Your task to perform on an android device: turn off sleep mode Image 0: 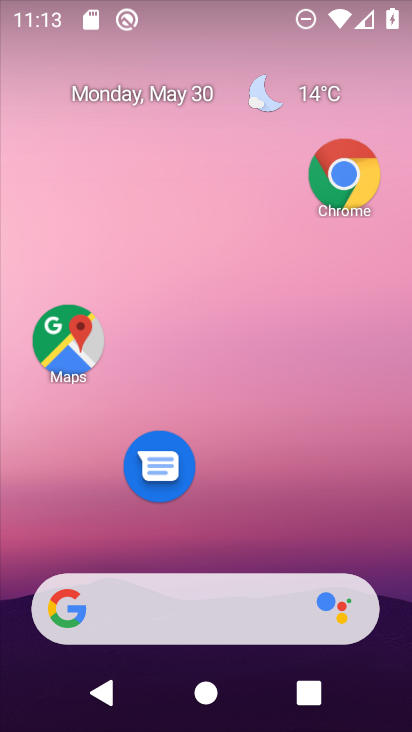
Step 0: click (344, 169)
Your task to perform on an android device: turn off sleep mode Image 1: 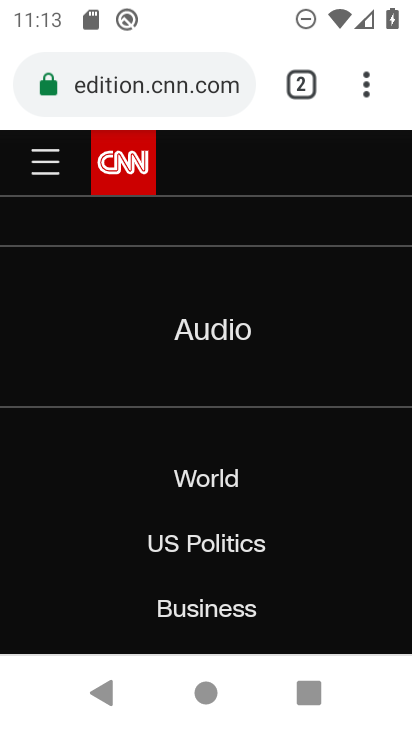
Step 1: click (303, 76)
Your task to perform on an android device: turn off sleep mode Image 2: 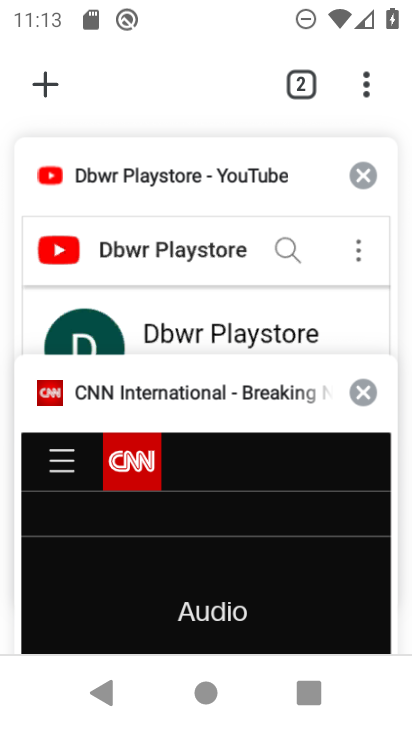
Step 2: click (48, 71)
Your task to perform on an android device: turn off sleep mode Image 3: 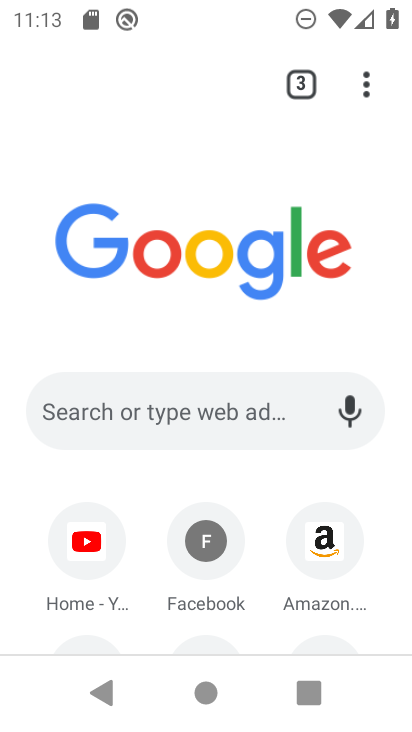
Step 3: press home button
Your task to perform on an android device: turn off sleep mode Image 4: 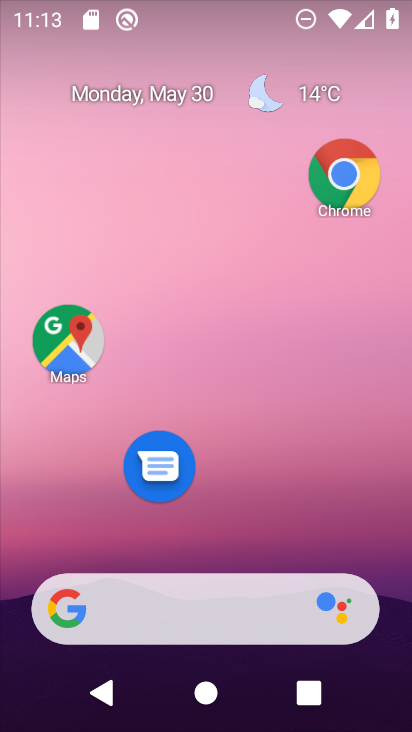
Step 4: drag from (288, 492) to (176, 89)
Your task to perform on an android device: turn off sleep mode Image 5: 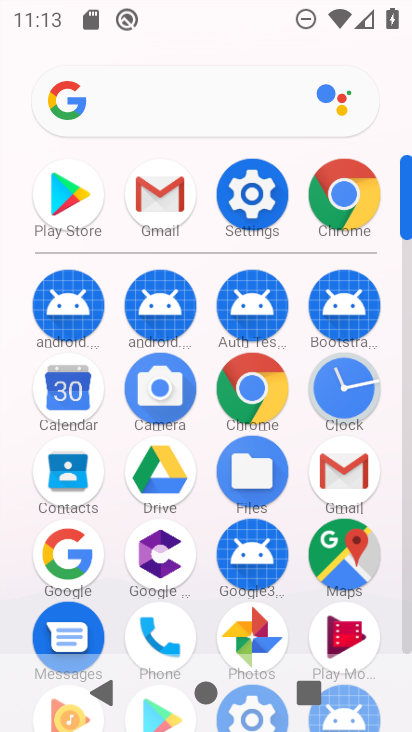
Step 5: click (263, 192)
Your task to perform on an android device: turn off sleep mode Image 6: 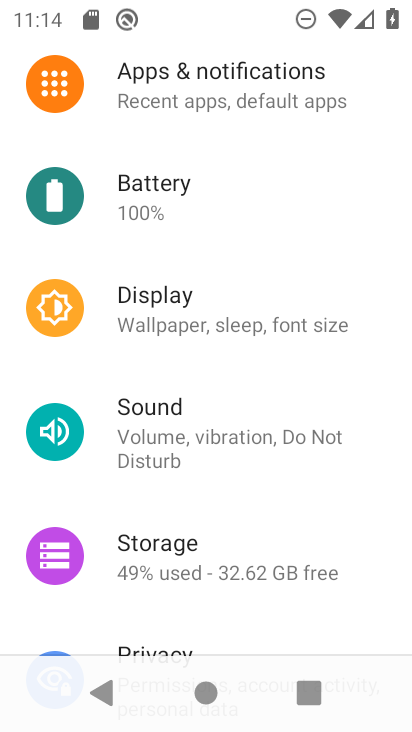
Step 6: click (178, 320)
Your task to perform on an android device: turn off sleep mode Image 7: 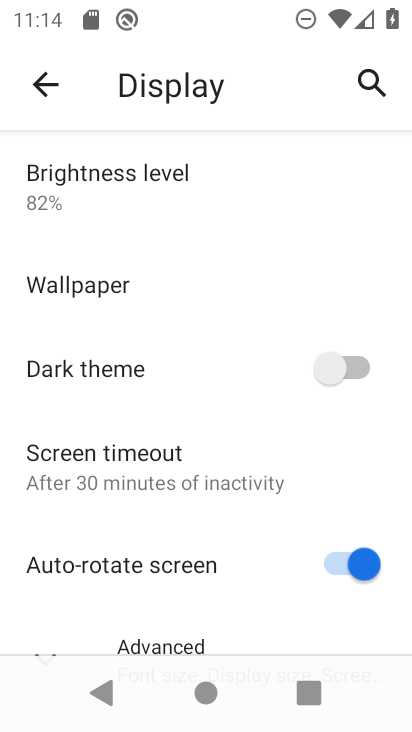
Step 7: drag from (156, 477) to (102, 115)
Your task to perform on an android device: turn off sleep mode Image 8: 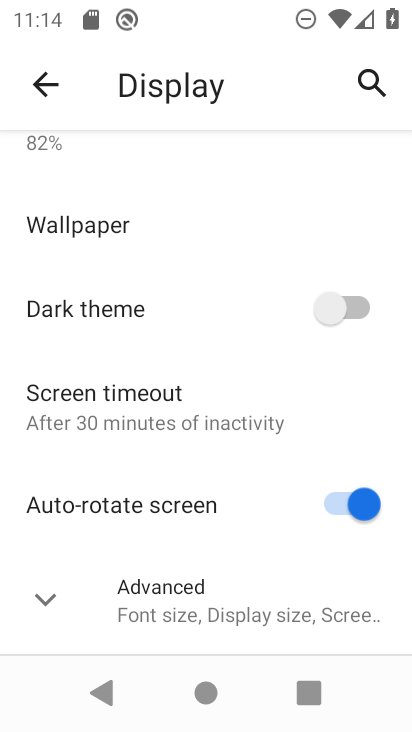
Step 8: click (163, 608)
Your task to perform on an android device: turn off sleep mode Image 9: 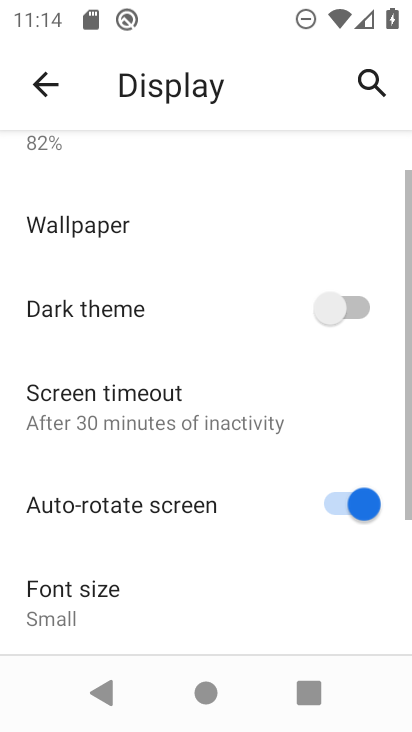
Step 9: task complete